Your task to perform on an android device: see creations saved in the google photos Image 0: 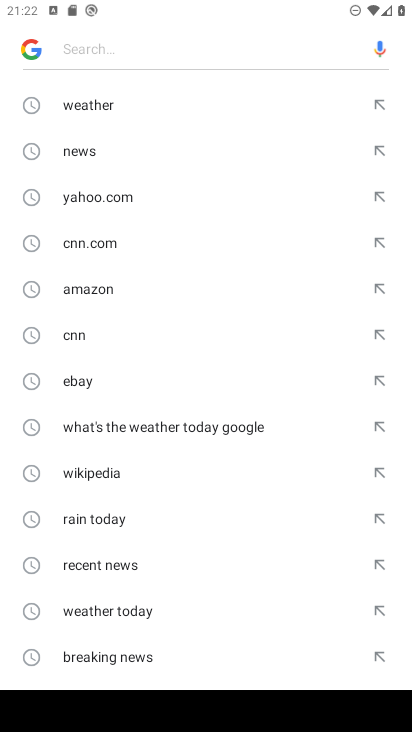
Step 0: press home button
Your task to perform on an android device: see creations saved in the google photos Image 1: 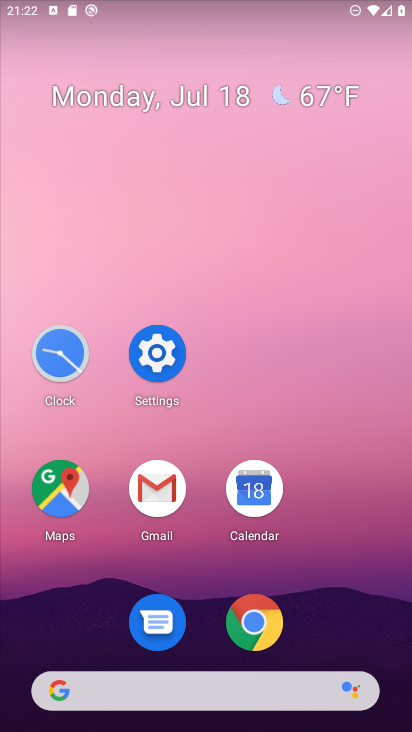
Step 1: drag from (394, 711) to (305, 81)
Your task to perform on an android device: see creations saved in the google photos Image 2: 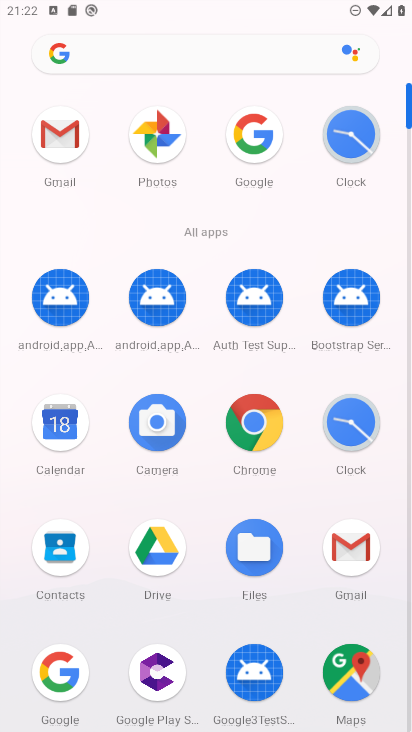
Step 2: click (167, 132)
Your task to perform on an android device: see creations saved in the google photos Image 3: 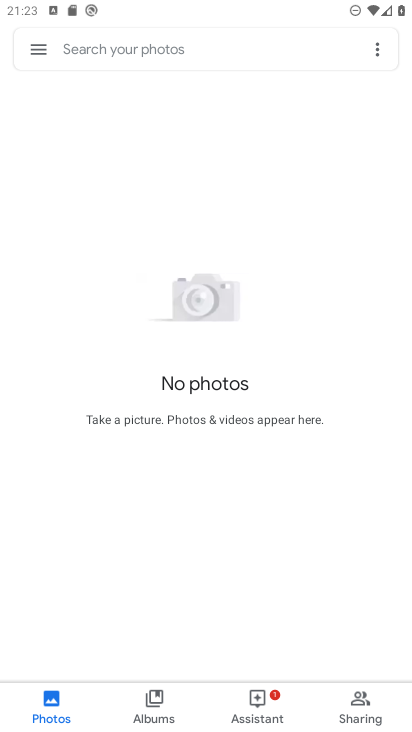
Step 3: task complete